Your task to perform on an android device: turn notification dots off Image 0: 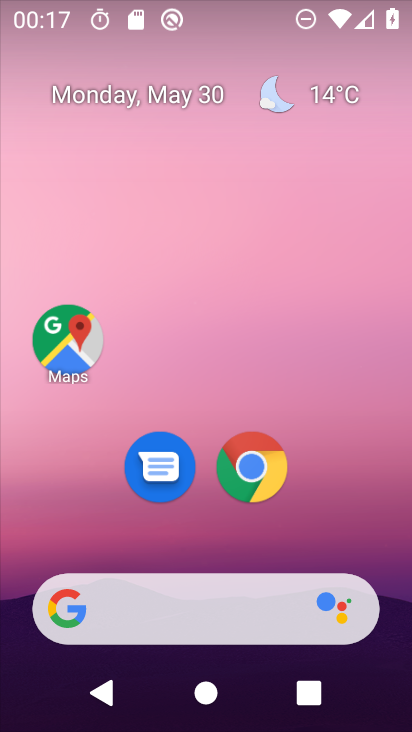
Step 0: drag from (197, 542) to (210, 152)
Your task to perform on an android device: turn notification dots off Image 1: 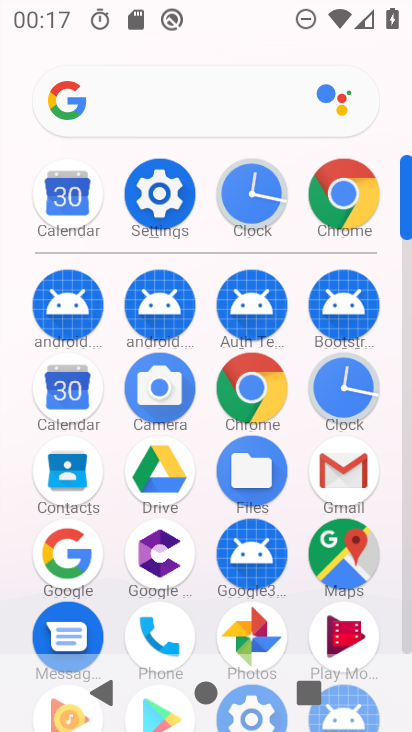
Step 1: click (185, 199)
Your task to perform on an android device: turn notification dots off Image 2: 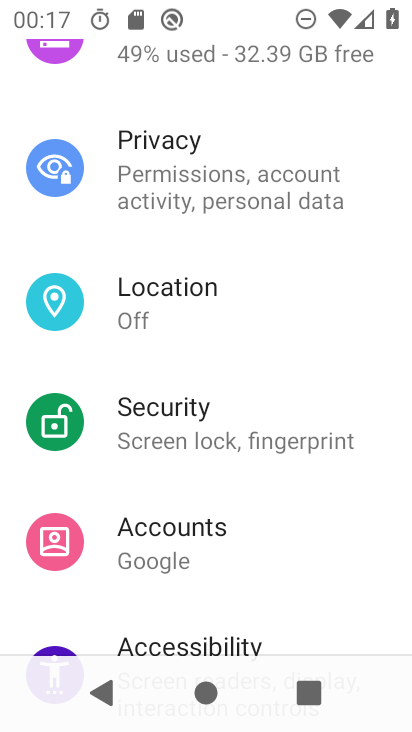
Step 2: drag from (185, 200) to (191, 509)
Your task to perform on an android device: turn notification dots off Image 3: 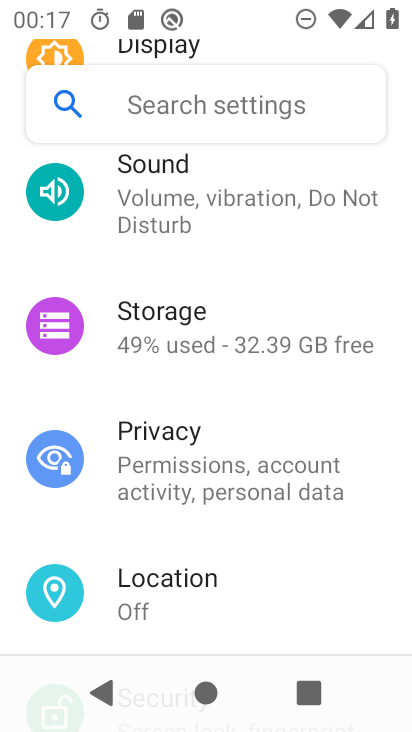
Step 3: drag from (200, 270) to (217, 525)
Your task to perform on an android device: turn notification dots off Image 4: 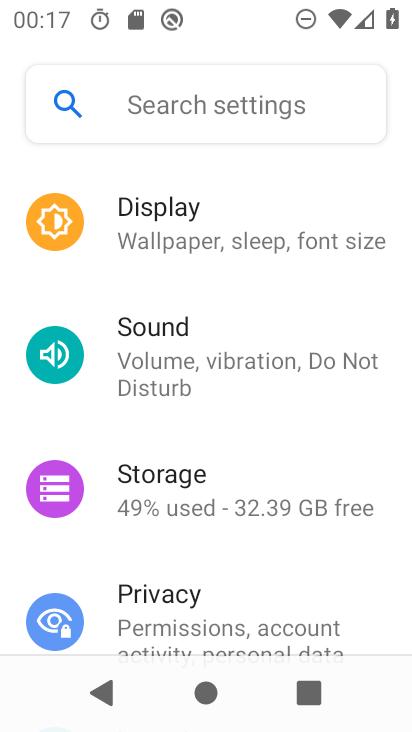
Step 4: drag from (220, 213) to (228, 475)
Your task to perform on an android device: turn notification dots off Image 5: 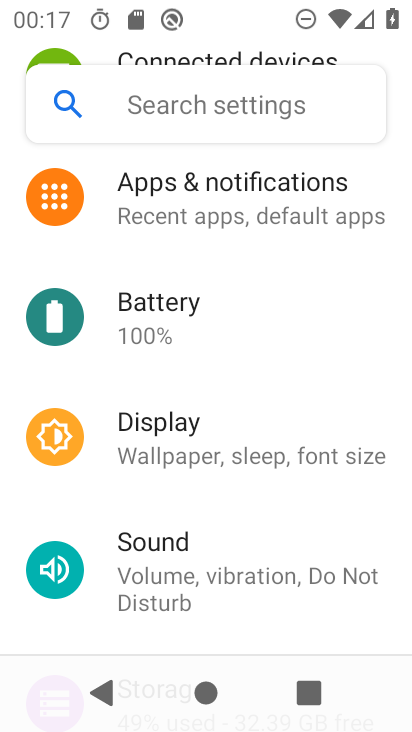
Step 5: click (231, 205)
Your task to perform on an android device: turn notification dots off Image 6: 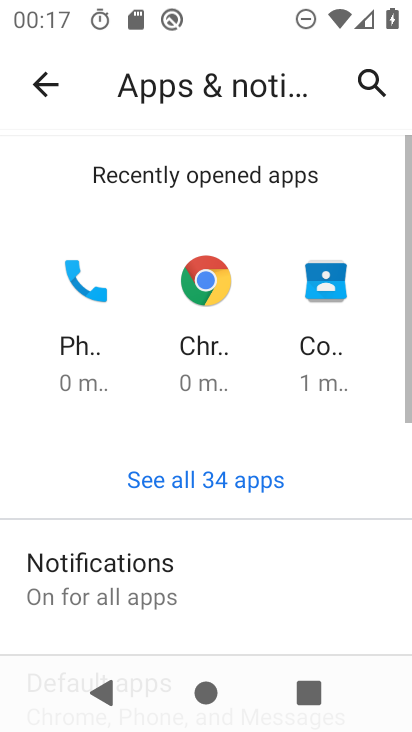
Step 6: click (175, 568)
Your task to perform on an android device: turn notification dots off Image 7: 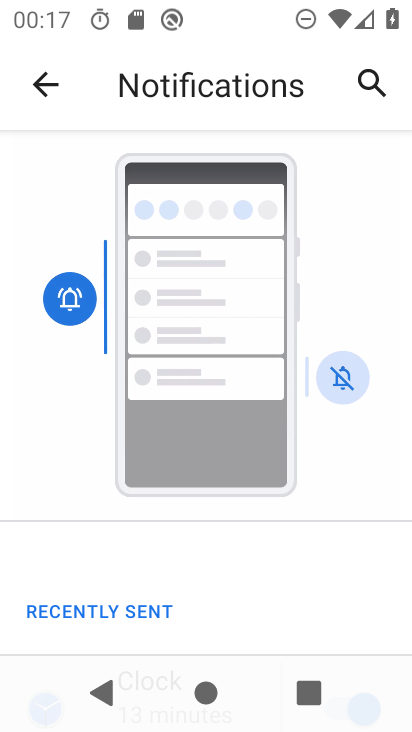
Step 7: drag from (163, 603) to (164, 270)
Your task to perform on an android device: turn notification dots off Image 8: 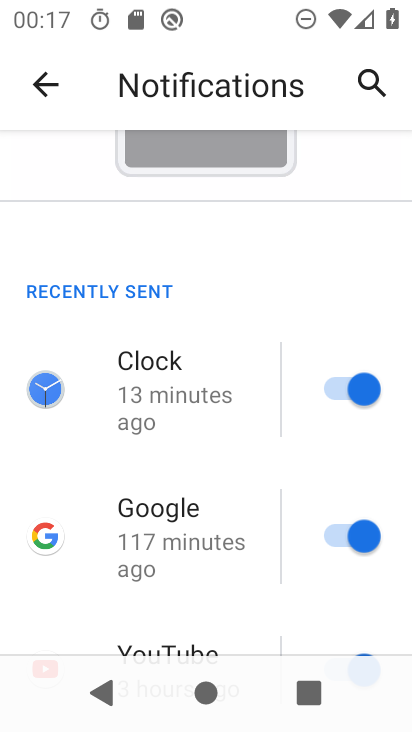
Step 8: drag from (225, 586) to (215, 214)
Your task to perform on an android device: turn notification dots off Image 9: 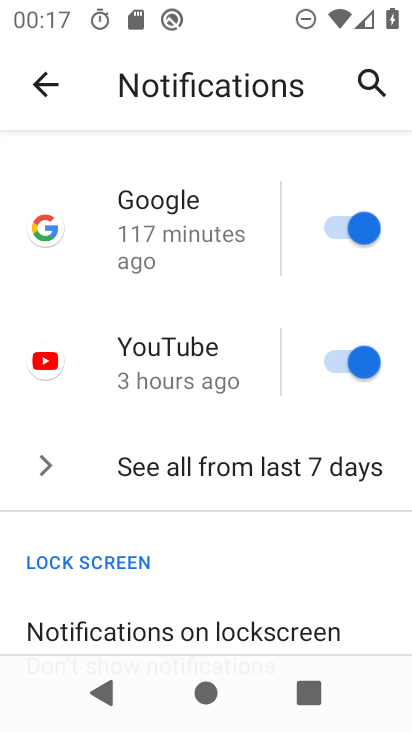
Step 9: drag from (192, 520) to (210, 221)
Your task to perform on an android device: turn notification dots off Image 10: 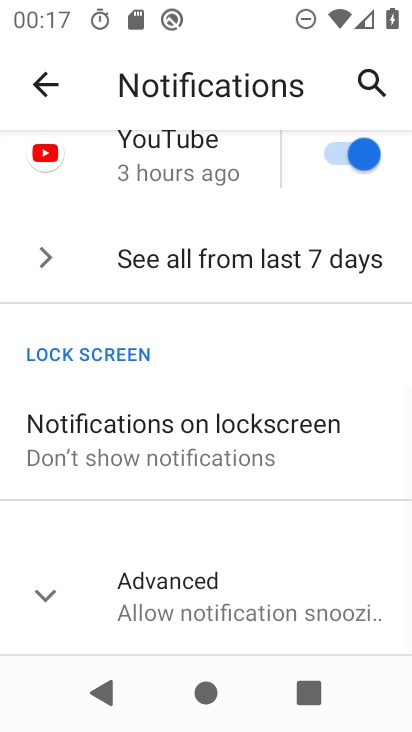
Step 10: click (187, 554)
Your task to perform on an android device: turn notification dots off Image 11: 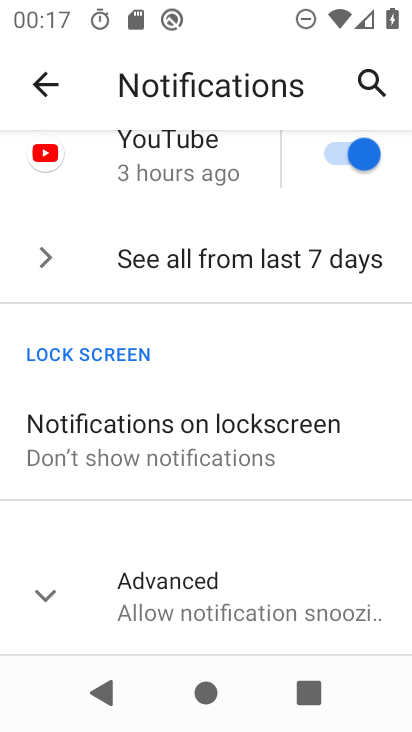
Step 11: drag from (192, 548) to (210, 334)
Your task to perform on an android device: turn notification dots off Image 12: 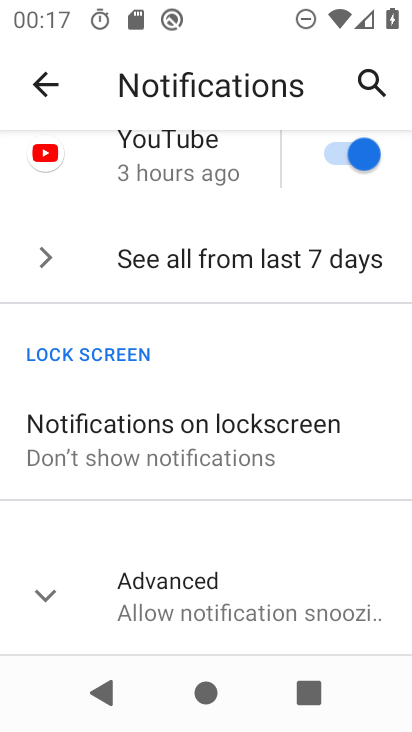
Step 12: click (195, 570)
Your task to perform on an android device: turn notification dots off Image 13: 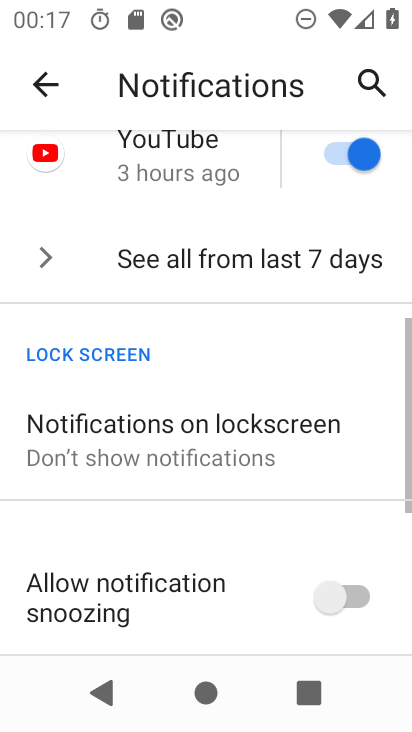
Step 13: drag from (196, 570) to (237, 239)
Your task to perform on an android device: turn notification dots off Image 14: 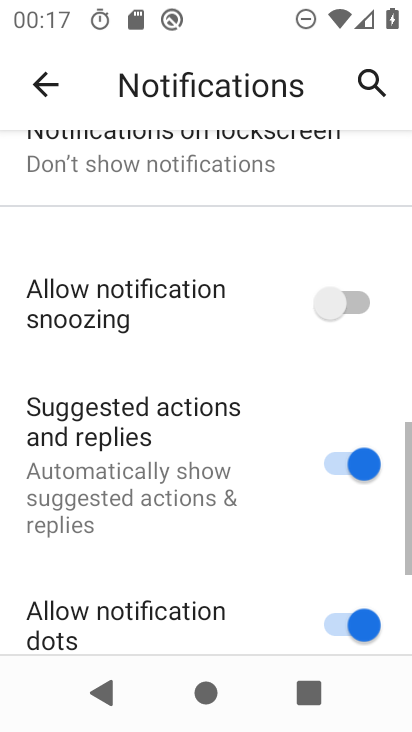
Step 14: drag from (220, 553) to (241, 307)
Your task to perform on an android device: turn notification dots off Image 15: 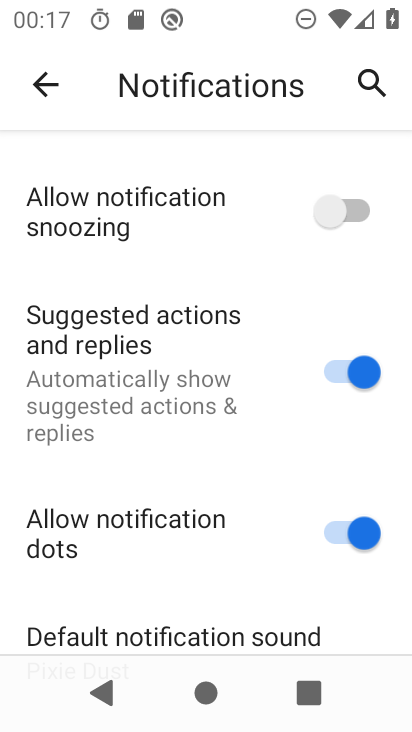
Step 15: click (317, 522)
Your task to perform on an android device: turn notification dots off Image 16: 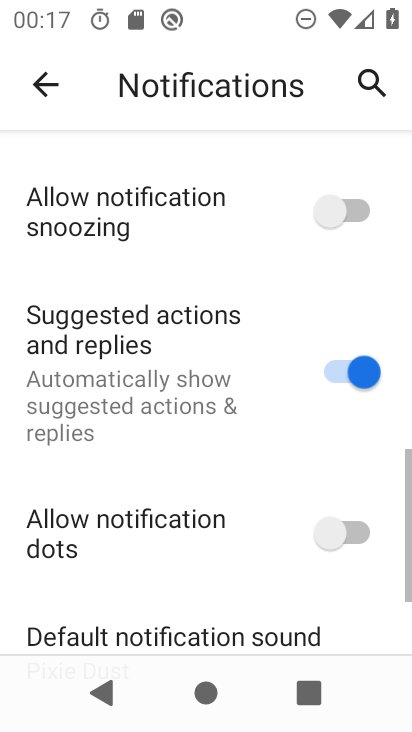
Step 16: task complete